Your task to perform on an android device: Who is the president of France? Image 0: 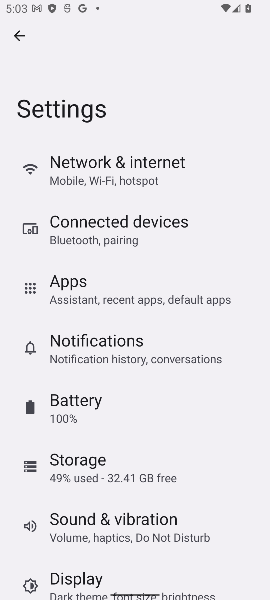
Step 0: press home button
Your task to perform on an android device: Who is the president of France? Image 1: 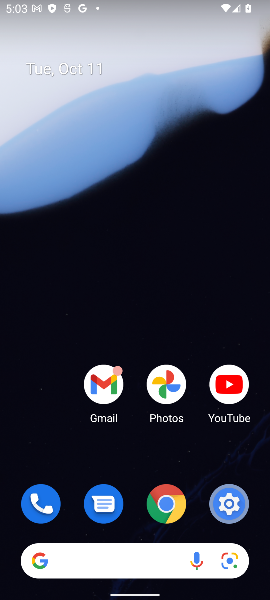
Step 1: click (103, 566)
Your task to perform on an android device: Who is the president of France? Image 2: 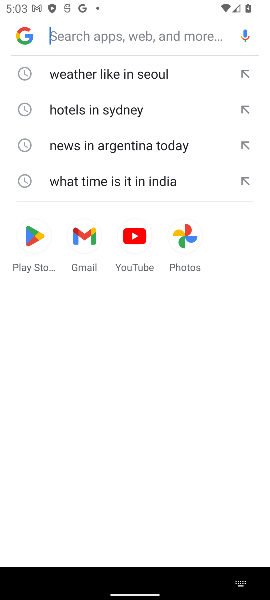
Step 2: click (91, 42)
Your task to perform on an android device: Who is the president of France? Image 3: 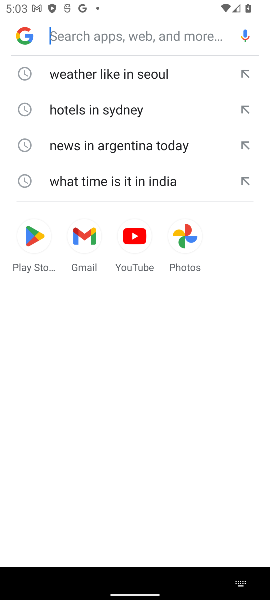
Step 3: type "Who is the president of France?"
Your task to perform on an android device: Who is the president of France? Image 4: 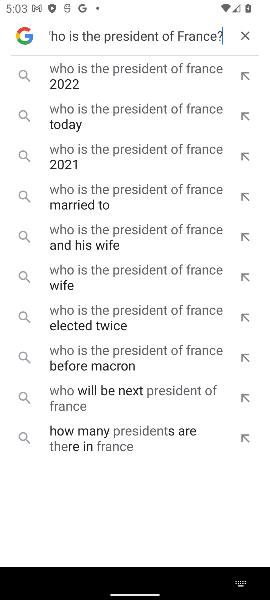
Step 4: click (127, 71)
Your task to perform on an android device: Who is the president of France? Image 5: 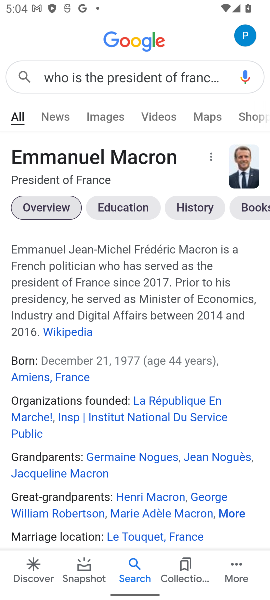
Step 5: task complete